Your task to perform on an android device: toggle notifications settings in the gmail app Image 0: 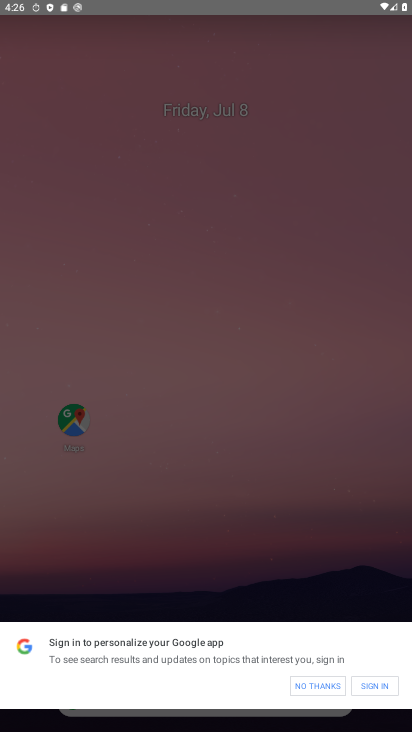
Step 0: press home button
Your task to perform on an android device: toggle notifications settings in the gmail app Image 1: 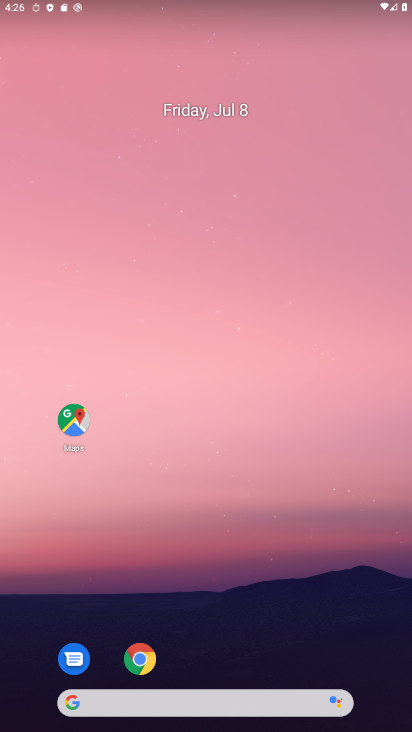
Step 1: drag from (315, 498) to (289, 27)
Your task to perform on an android device: toggle notifications settings in the gmail app Image 2: 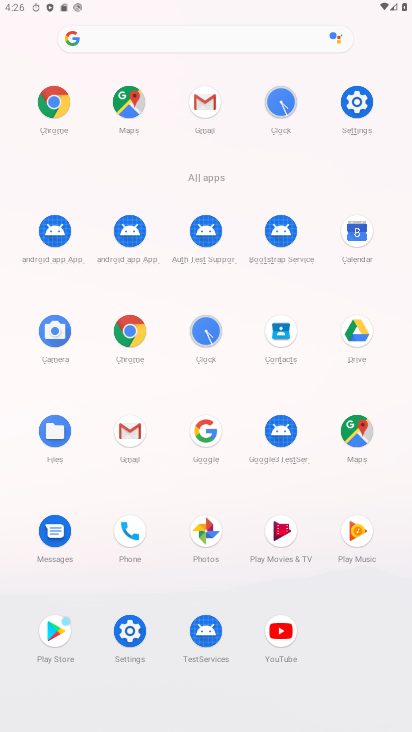
Step 2: click (209, 105)
Your task to perform on an android device: toggle notifications settings in the gmail app Image 3: 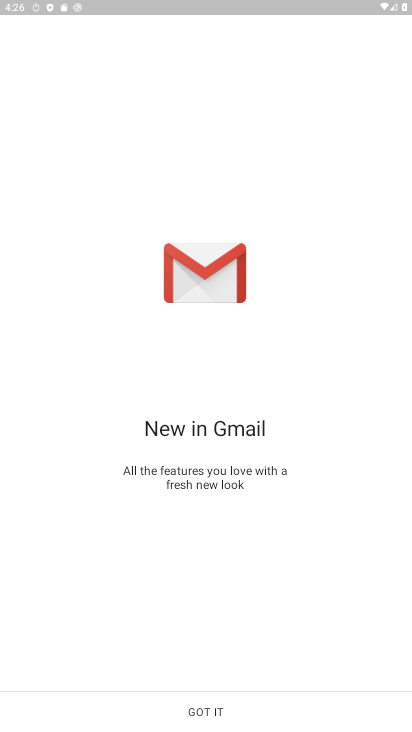
Step 3: click (209, 710)
Your task to perform on an android device: toggle notifications settings in the gmail app Image 4: 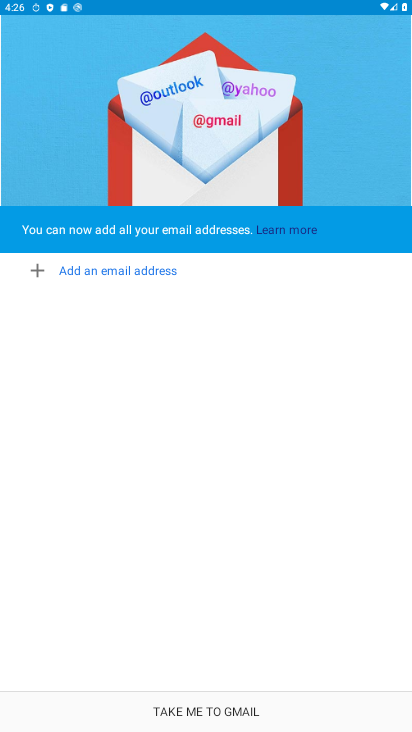
Step 4: click (209, 708)
Your task to perform on an android device: toggle notifications settings in the gmail app Image 5: 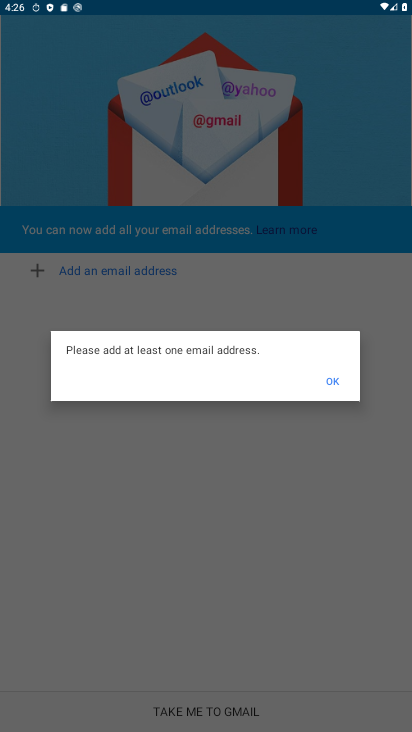
Step 5: click (209, 708)
Your task to perform on an android device: toggle notifications settings in the gmail app Image 6: 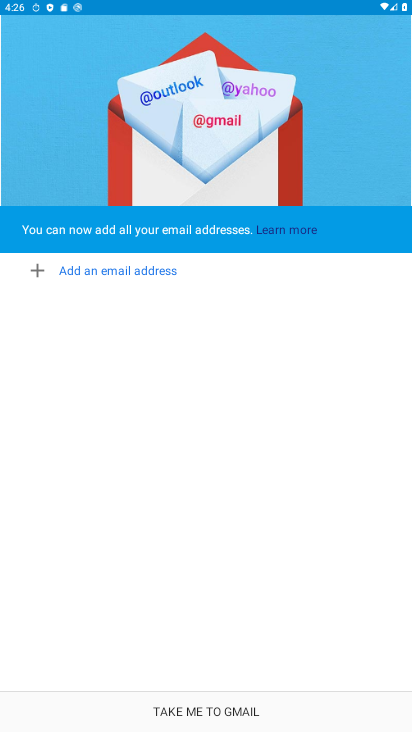
Step 6: task complete